Your task to perform on an android device: Search for the new steph curry shoes on Amazon. Image 0: 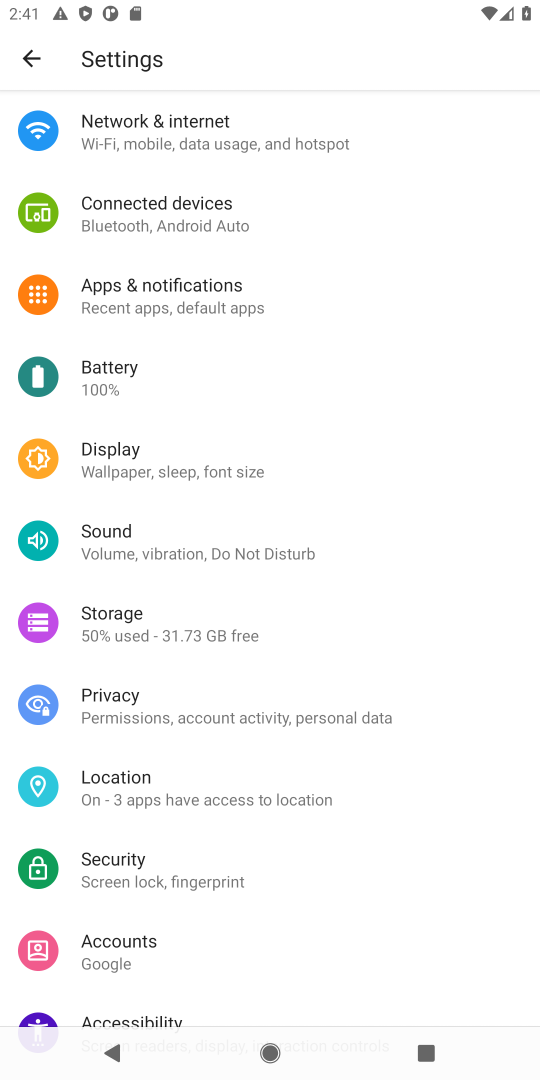
Step 0: press home button
Your task to perform on an android device: Search for the new steph curry shoes on Amazon. Image 1: 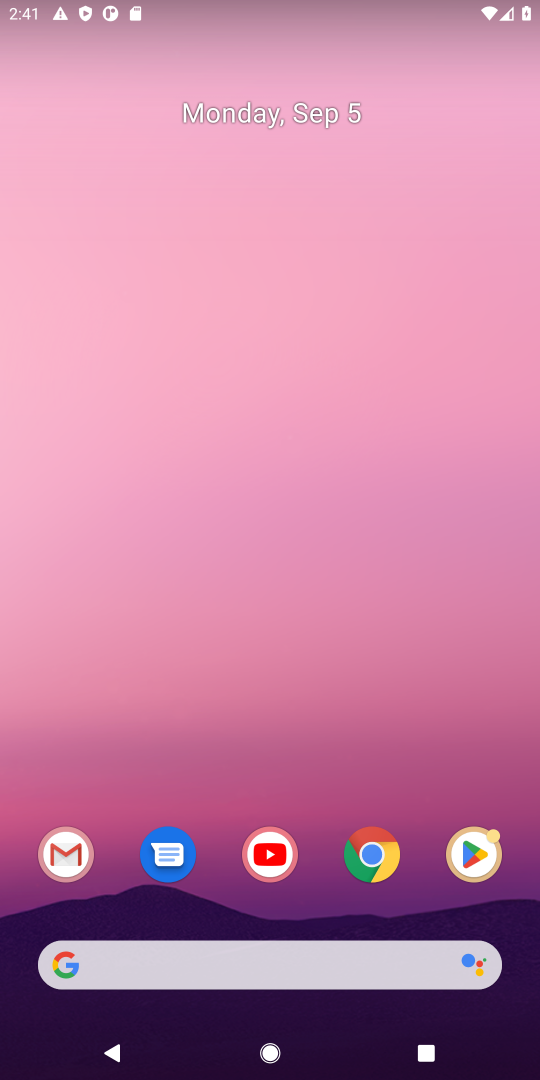
Step 1: click (391, 970)
Your task to perform on an android device: Search for the new steph curry shoes on Amazon. Image 2: 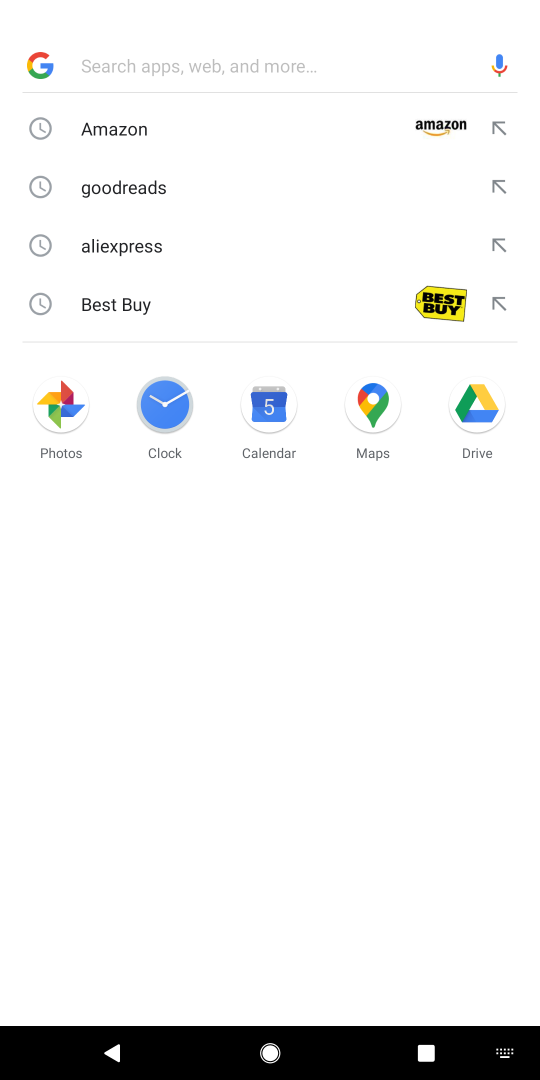
Step 2: type "amazon"
Your task to perform on an android device: Search for the new steph curry shoes on Amazon. Image 3: 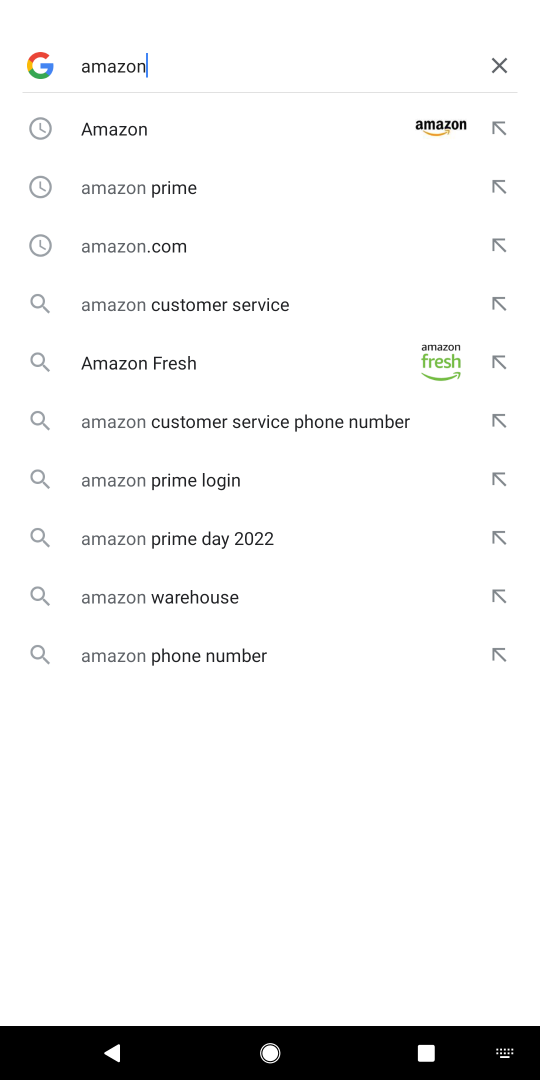
Step 3: press enter
Your task to perform on an android device: Search for the new steph curry shoes on Amazon. Image 4: 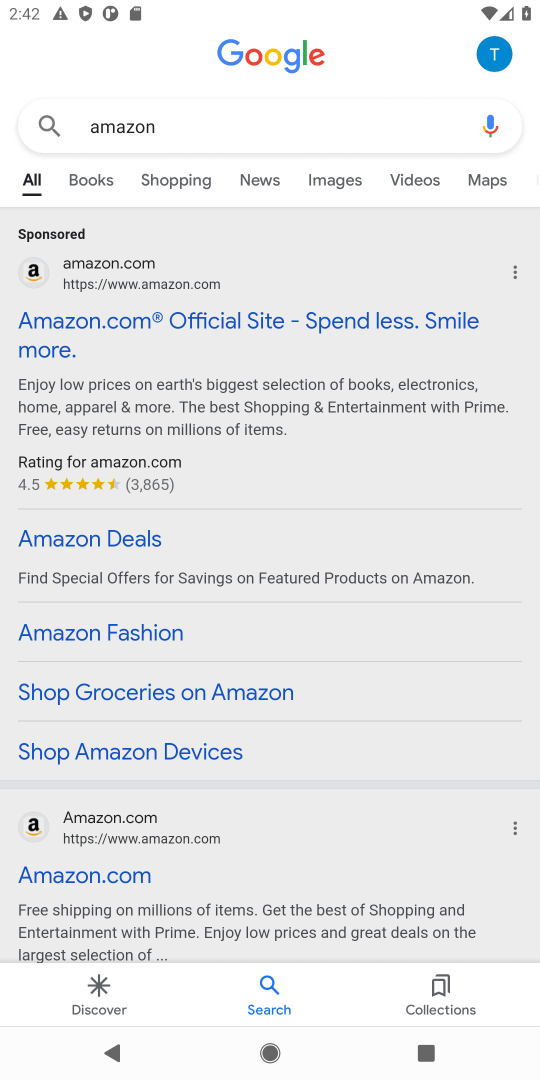
Step 4: click (367, 318)
Your task to perform on an android device: Search for the new steph curry shoes on Amazon. Image 5: 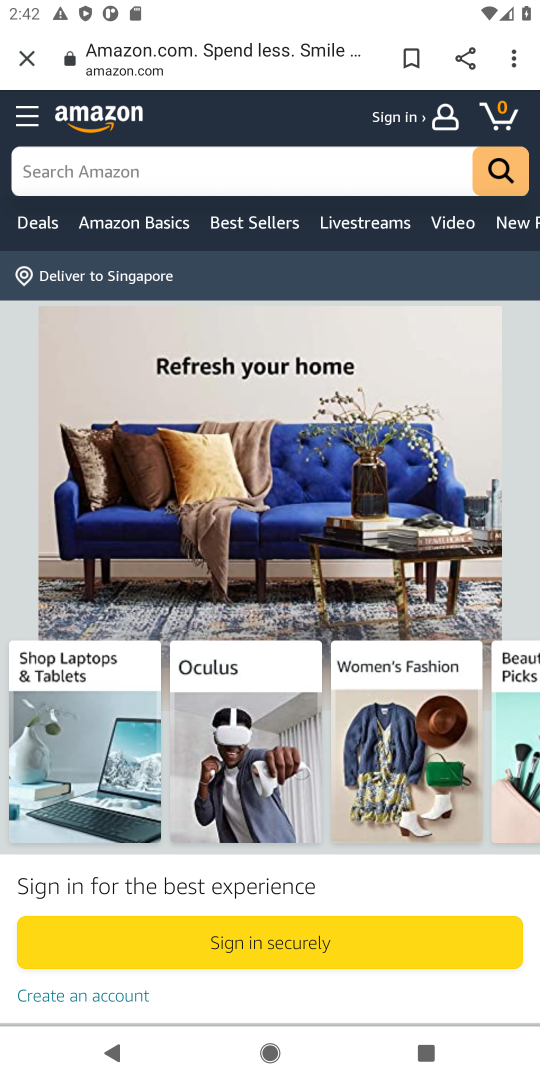
Step 5: click (176, 171)
Your task to perform on an android device: Search for the new steph curry shoes on Amazon. Image 6: 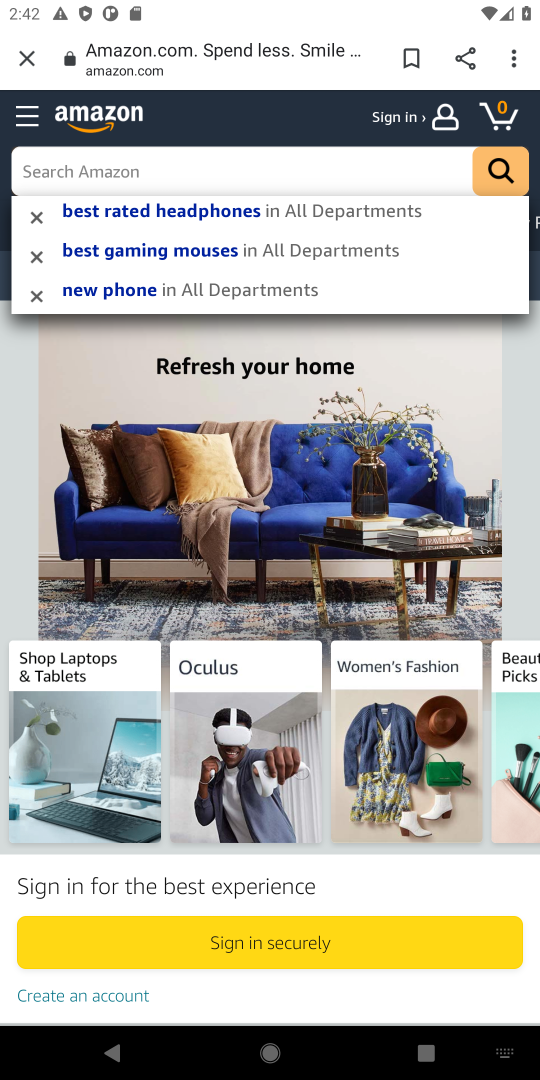
Step 6: press enter
Your task to perform on an android device: Search for the new steph curry shoes on Amazon. Image 7: 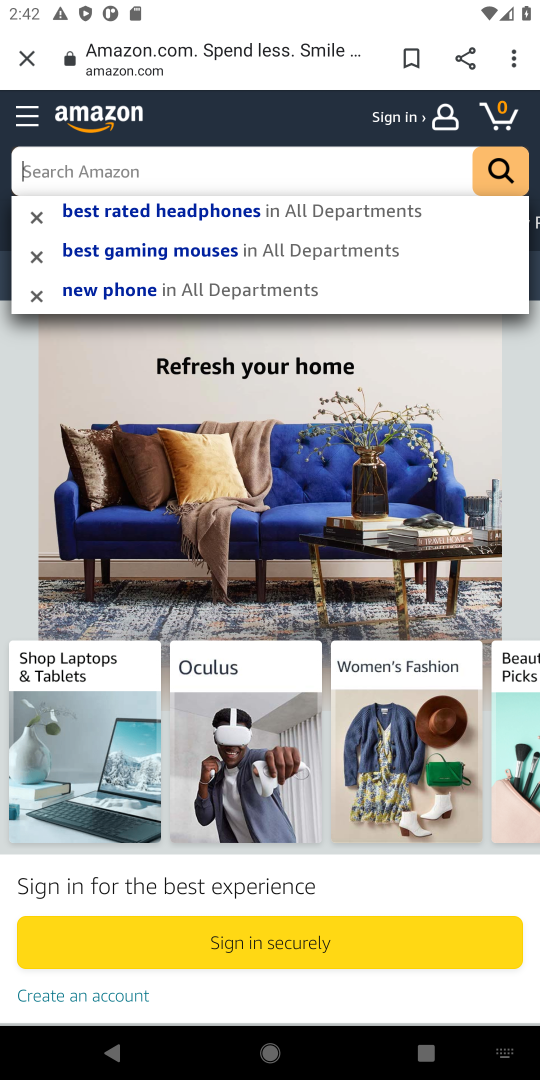
Step 7: type "new steph curry shoes"
Your task to perform on an android device: Search for the new steph curry shoes on Amazon. Image 8: 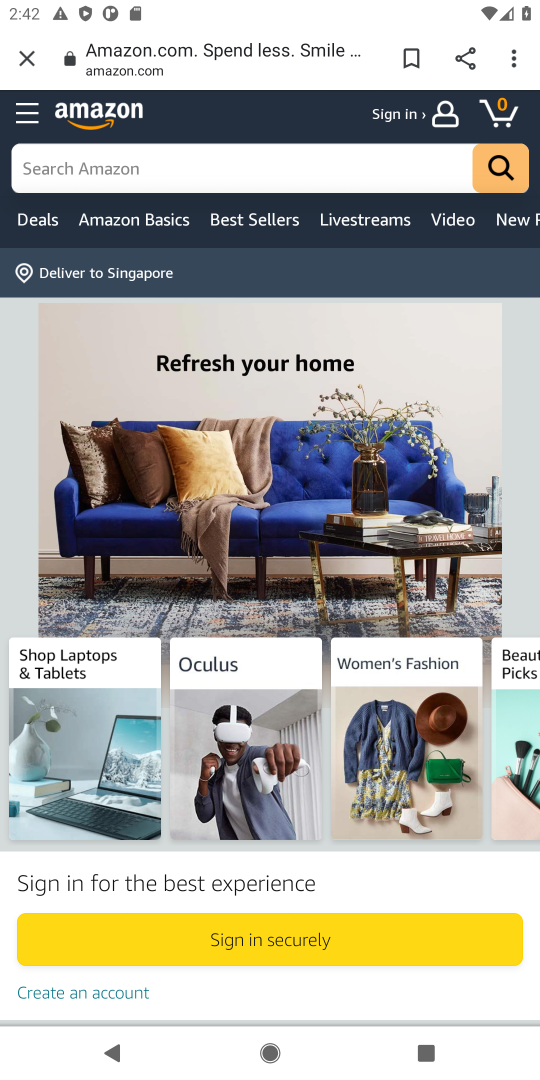
Step 8: click (178, 165)
Your task to perform on an android device: Search for the new steph curry shoes on Amazon. Image 9: 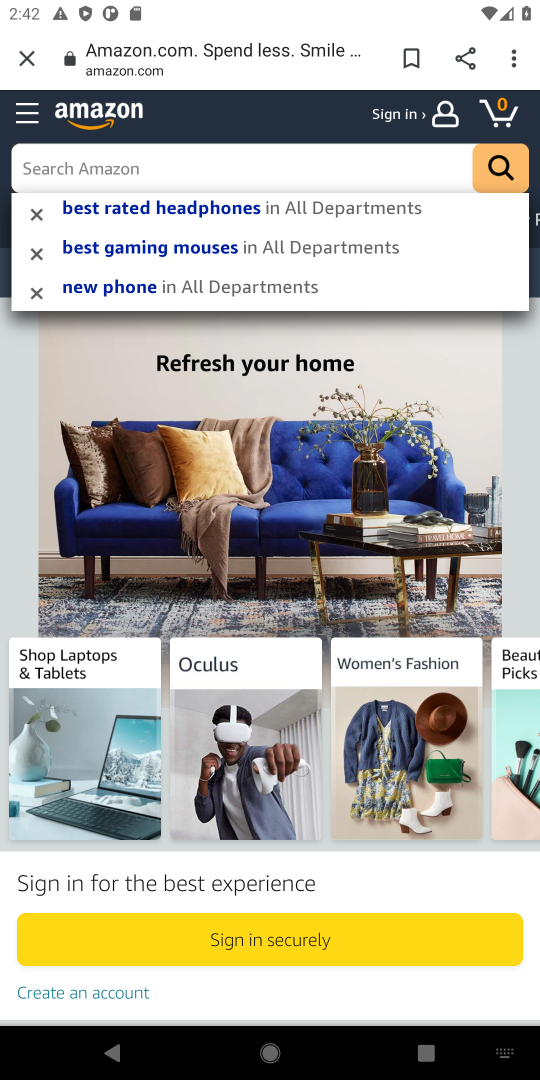
Step 9: type "new steph curry shoes"
Your task to perform on an android device: Search for the new steph curry shoes on Amazon. Image 10: 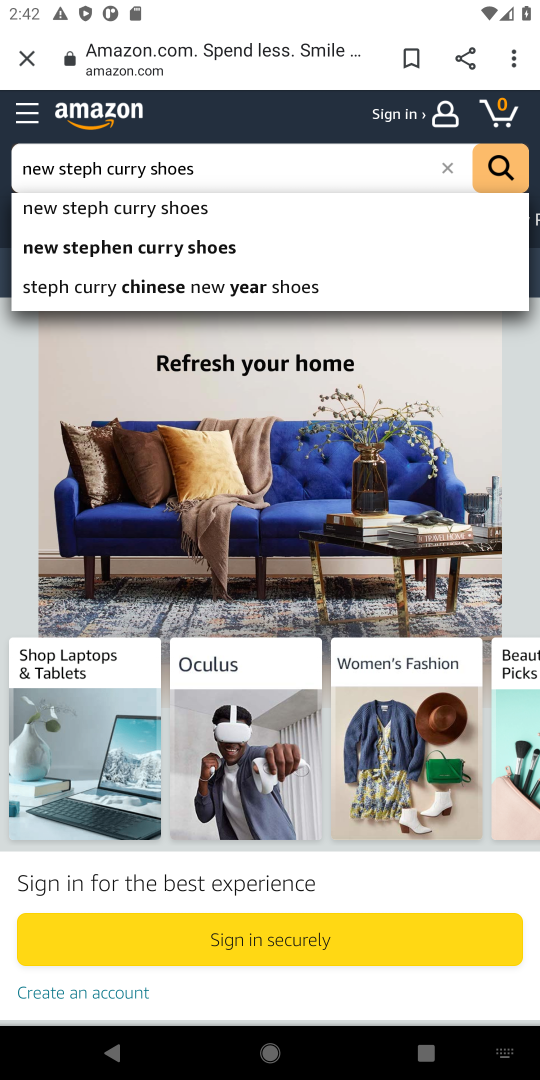
Step 10: click (166, 209)
Your task to perform on an android device: Search for the new steph curry shoes on Amazon. Image 11: 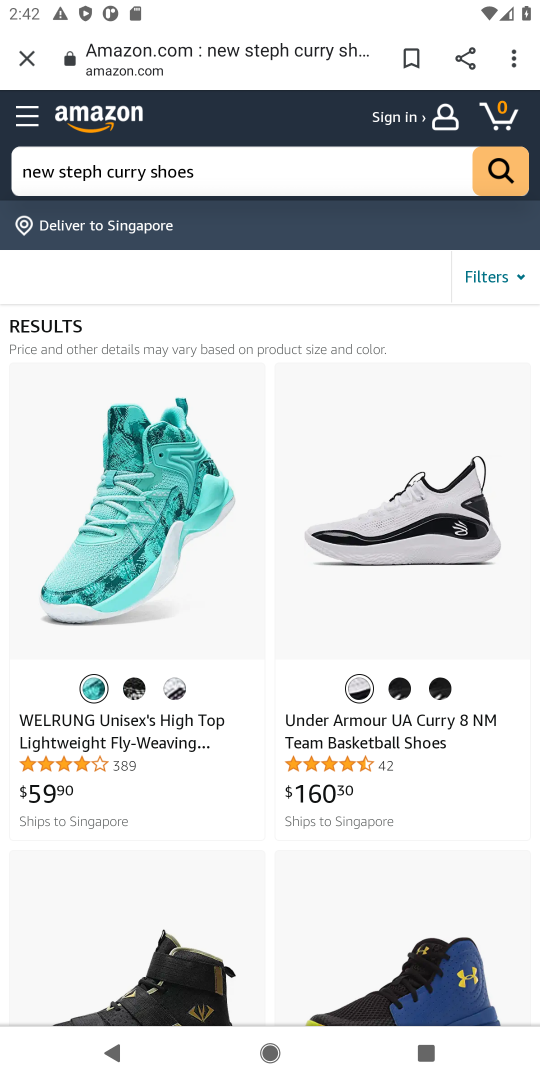
Step 11: task complete